Your task to perform on an android device: Open Google Image 0: 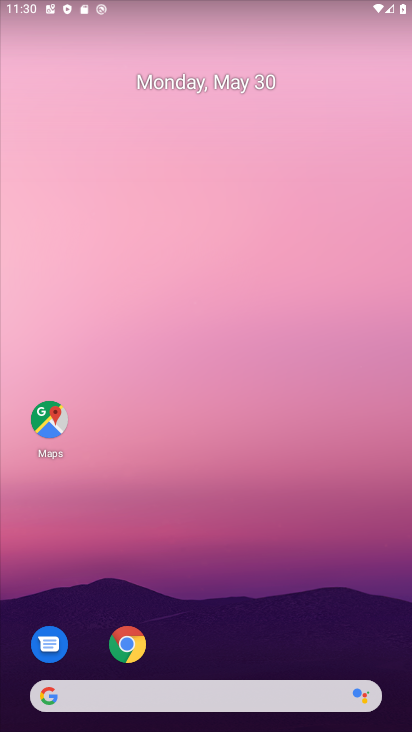
Step 0: click (174, 684)
Your task to perform on an android device: Open Google Image 1: 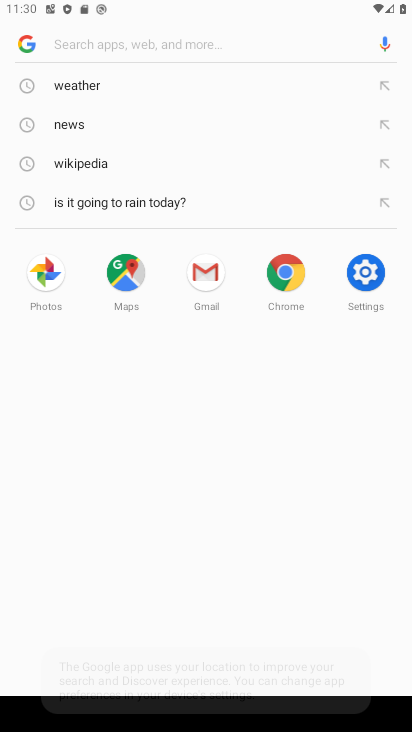
Step 1: click (24, 34)
Your task to perform on an android device: Open Google Image 2: 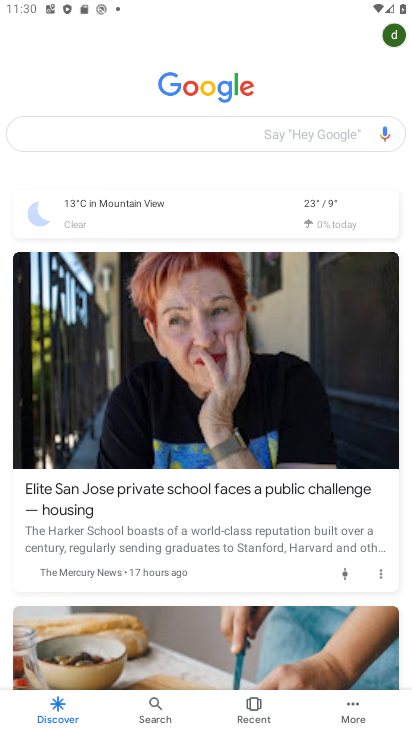
Step 2: task complete